Your task to perform on an android device: star an email in the gmail app Image 0: 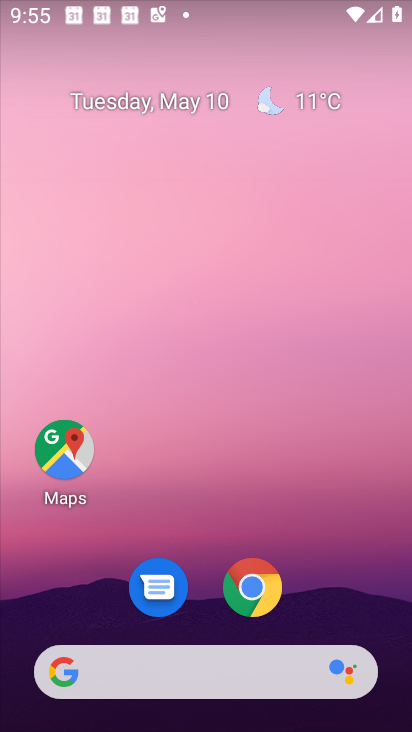
Step 0: drag from (374, 598) to (336, 171)
Your task to perform on an android device: star an email in the gmail app Image 1: 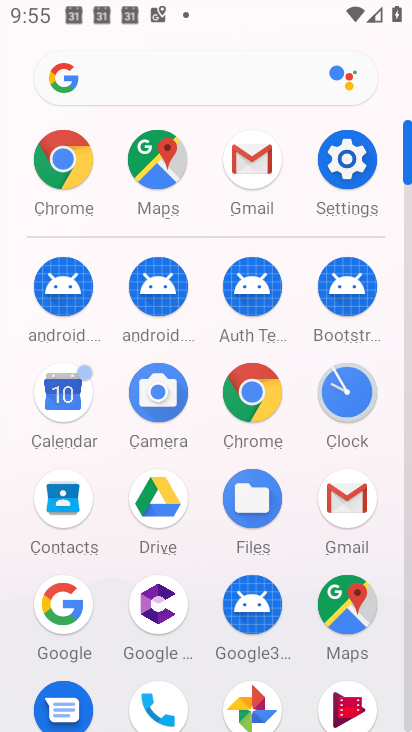
Step 1: click (349, 506)
Your task to perform on an android device: star an email in the gmail app Image 2: 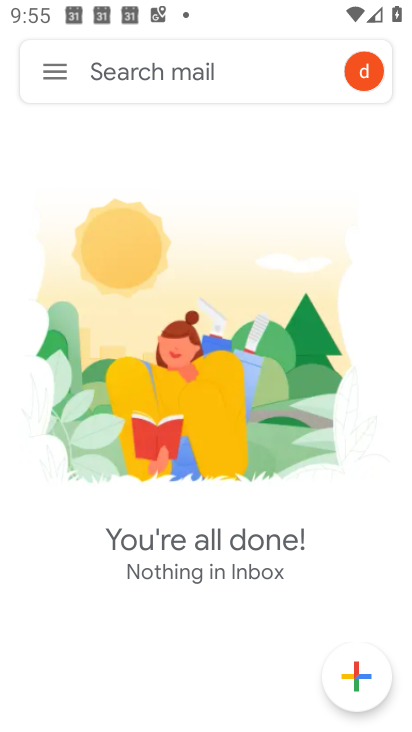
Step 2: click (66, 71)
Your task to perform on an android device: star an email in the gmail app Image 3: 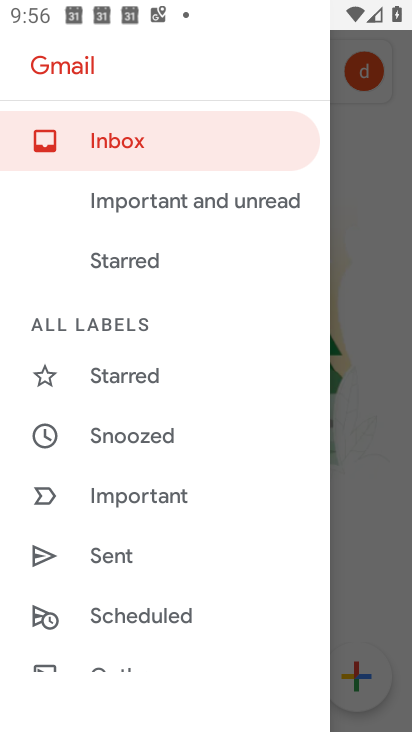
Step 3: click (166, 370)
Your task to perform on an android device: star an email in the gmail app Image 4: 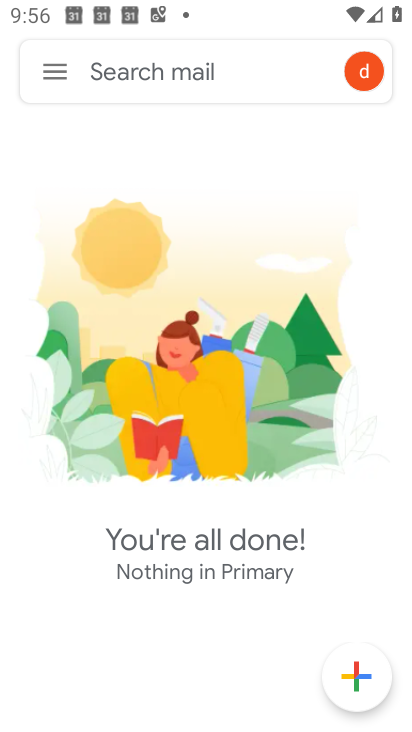
Step 4: task complete